Your task to perform on an android device: turn on priority inbox in the gmail app Image 0: 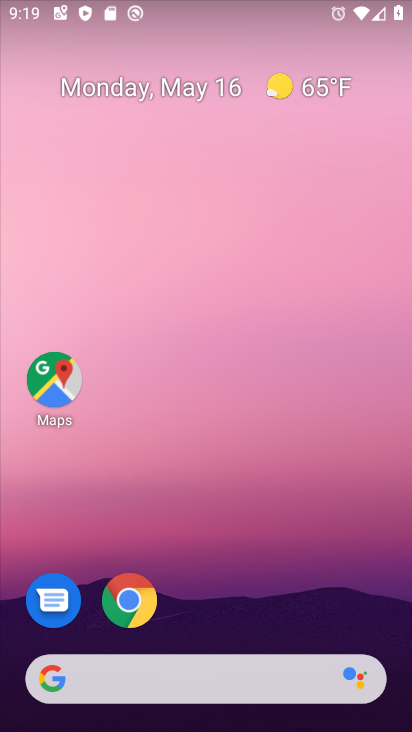
Step 0: click (3, 577)
Your task to perform on an android device: turn on priority inbox in the gmail app Image 1: 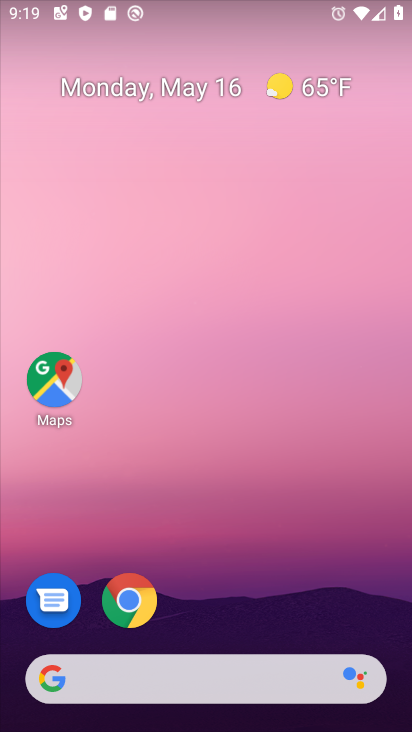
Step 1: drag from (201, 621) to (286, 6)
Your task to perform on an android device: turn on priority inbox in the gmail app Image 2: 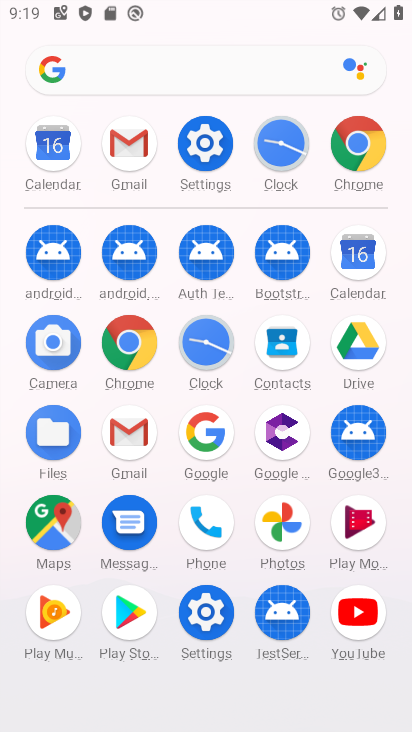
Step 2: click (148, 433)
Your task to perform on an android device: turn on priority inbox in the gmail app Image 3: 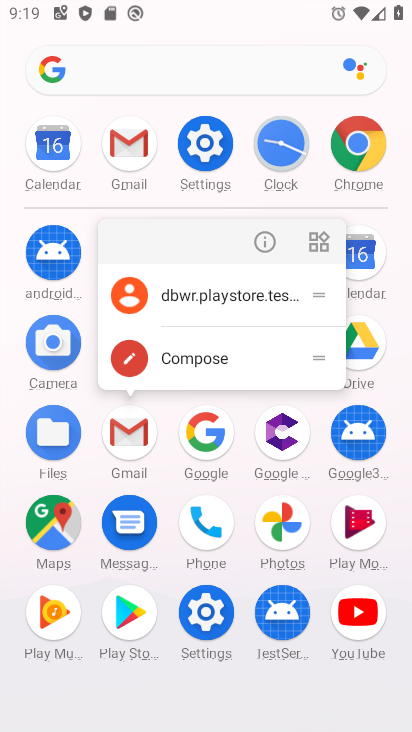
Step 3: click (209, 298)
Your task to perform on an android device: turn on priority inbox in the gmail app Image 4: 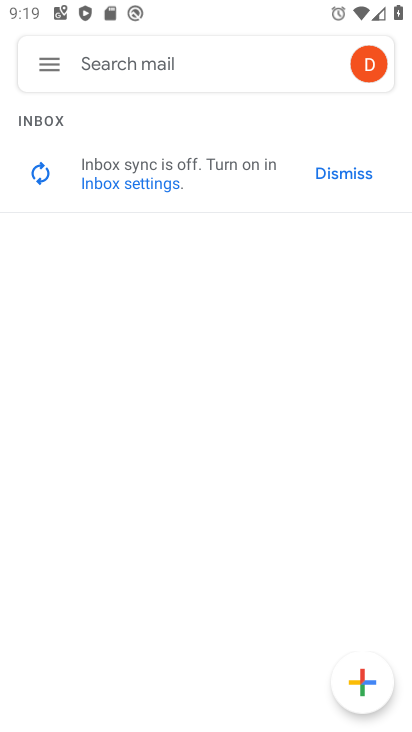
Step 4: click (44, 71)
Your task to perform on an android device: turn on priority inbox in the gmail app Image 5: 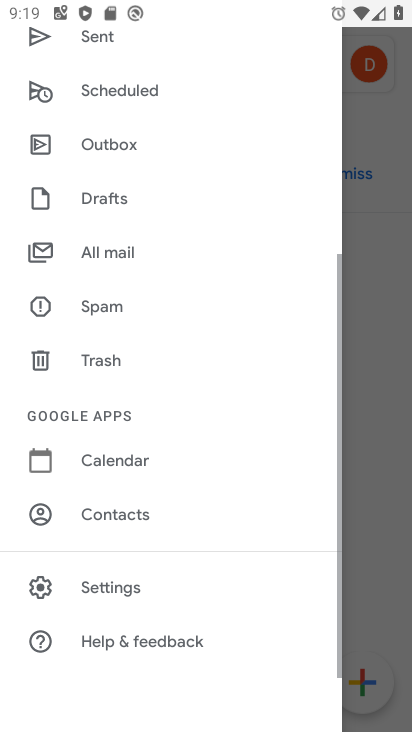
Step 5: drag from (96, 521) to (200, 174)
Your task to perform on an android device: turn on priority inbox in the gmail app Image 6: 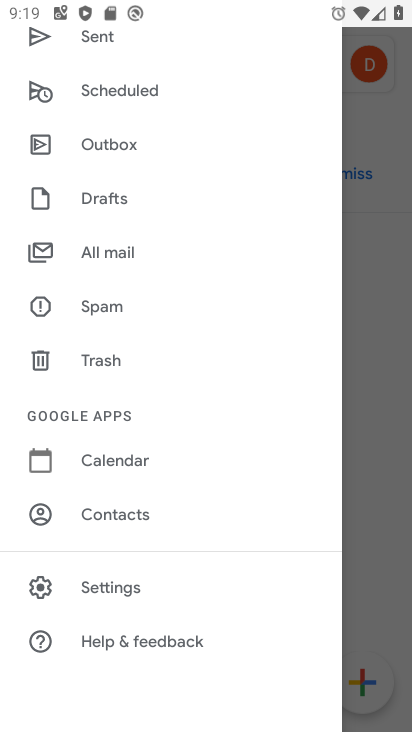
Step 6: click (152, 580)
Your task to perform on an android device: turn on priority inbox in the gmail app Image 7: 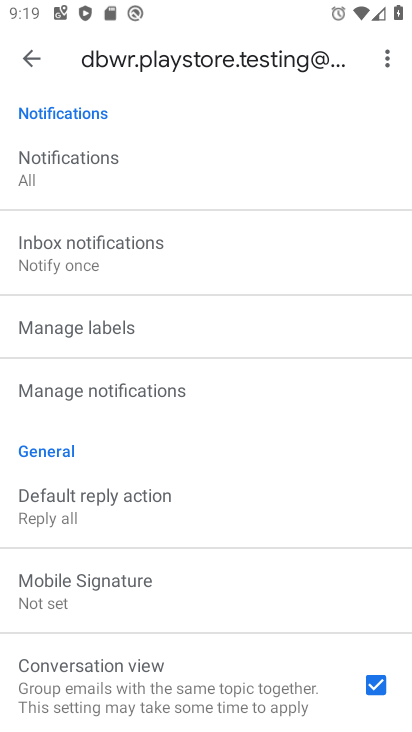
Step 7: drag from (163, 188) to (269, 729)
Your task to perform on an android device: turn on priority inbox in the gmail app Image 8: 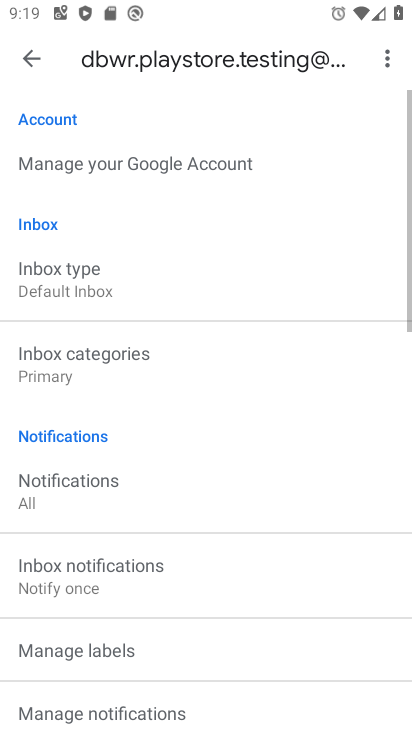
Step 8: click (115, 283)
Your task to perform on an android device: turn on priority inbox in the gmail app Image 9: 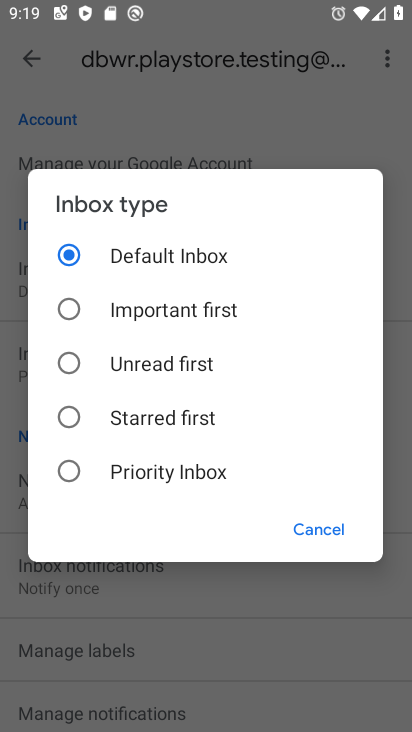
Step 9: click (126, 464)
Your task to perform on an android device: turn on priority inbox in the gmail app Image 10: 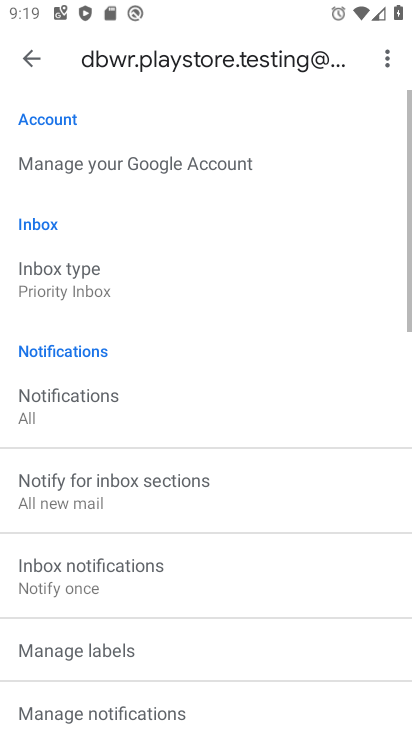
Step 10: task complete